Your task to perform on an android device: change the clock style Image 0: 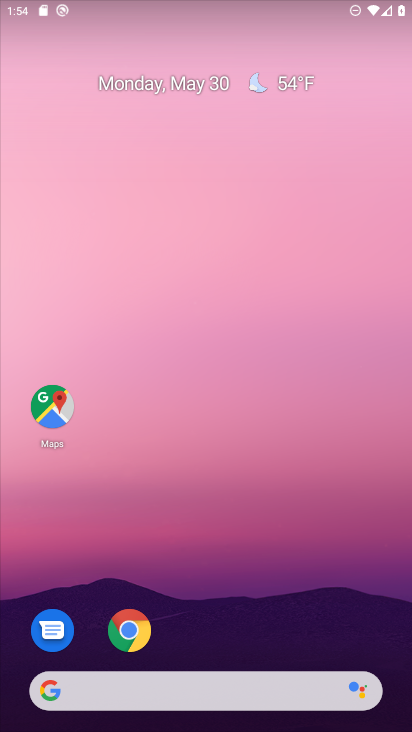
Step 0: drag from (243, 686) to (229, 190)
Your task to perform on an android device: change the clock style Image 1: 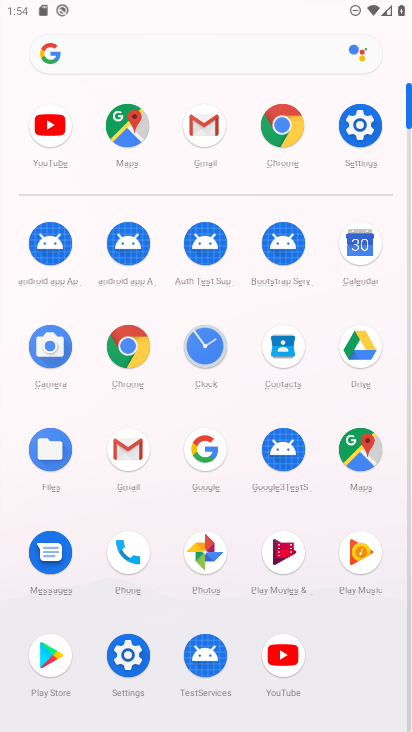
Step 1: click (209, 346)
Your task to perform on an android device: change the clock style Image 2: 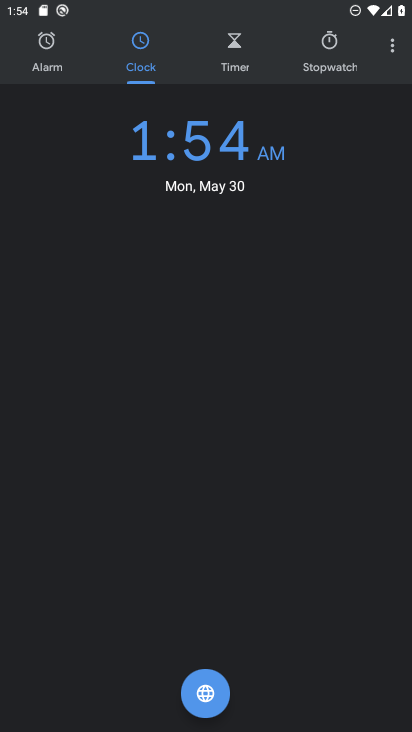
Step 2: click (388, 55)
Your task to perform on an android device: change the clock style Image 3: 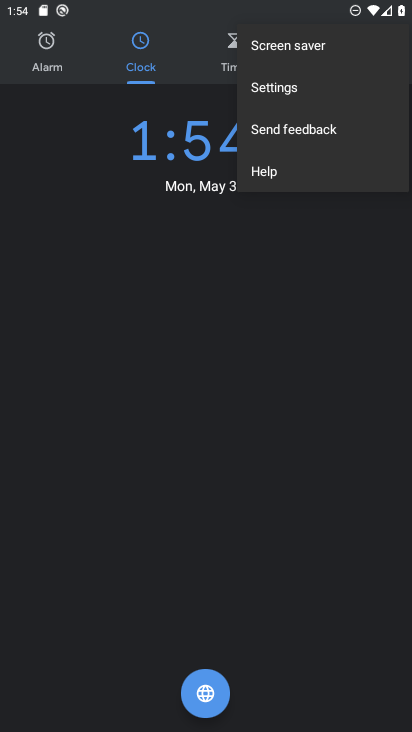
Step 3: click (306, 84)
Your task to perform on an android device: change the clock style Image 4: 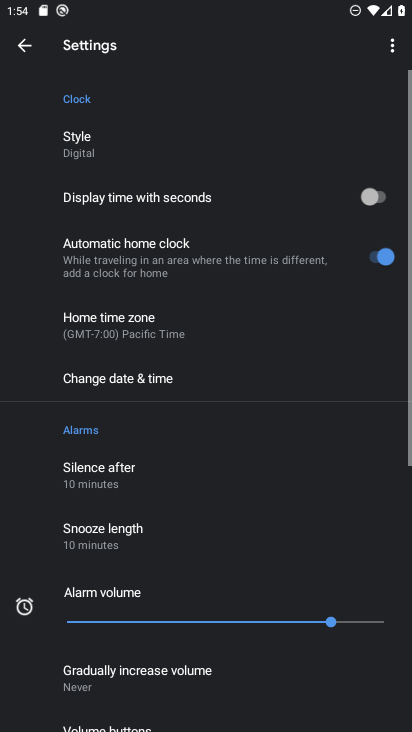
Step 4: click (131, 146)
Your task to perform on an android device: change the clock style Image 5: 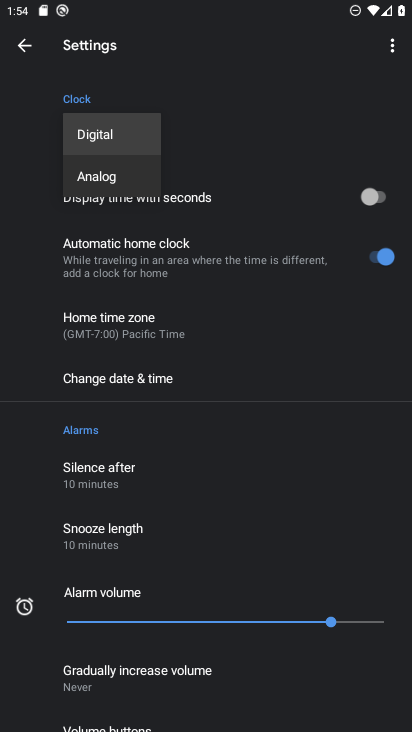
Step 5: click (115, 171)
Your task to perform on an android device: change the clock style Image 6: 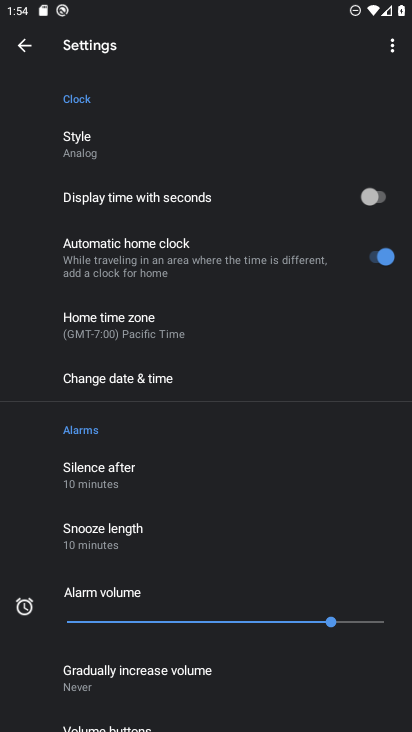
Step 6: task complete